Your task to perform on an android device: turn off picture-in-picture Image 0: 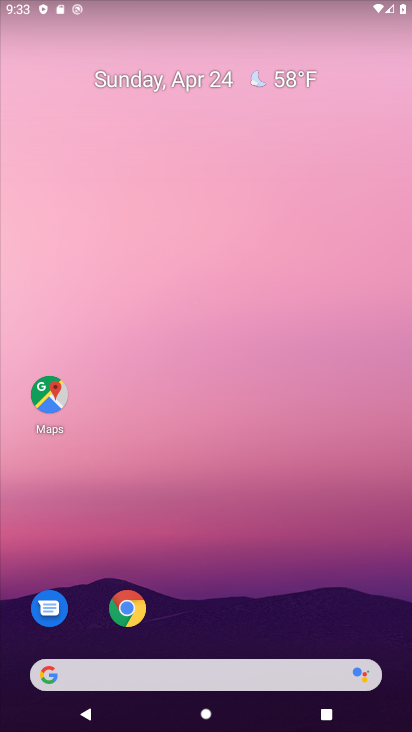
Step 0: drag from (352, 463) to (342, 106)
Your task to perform on an android device: turn off picture-in-picture Image 1: 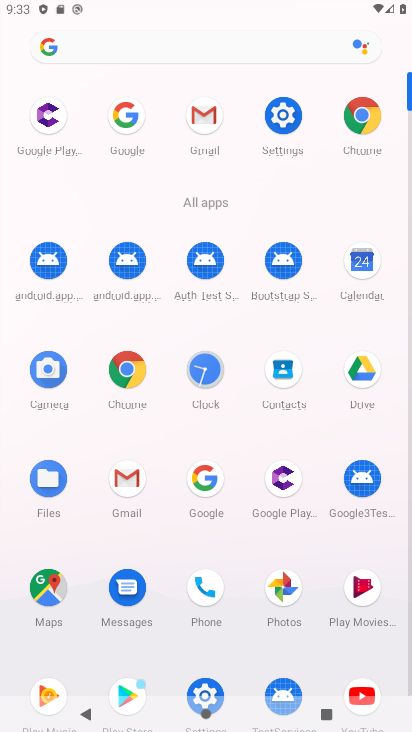
Step 1: click (366, 122)
Your task to perform on an android device: turn off picture-in-picture Image 2: 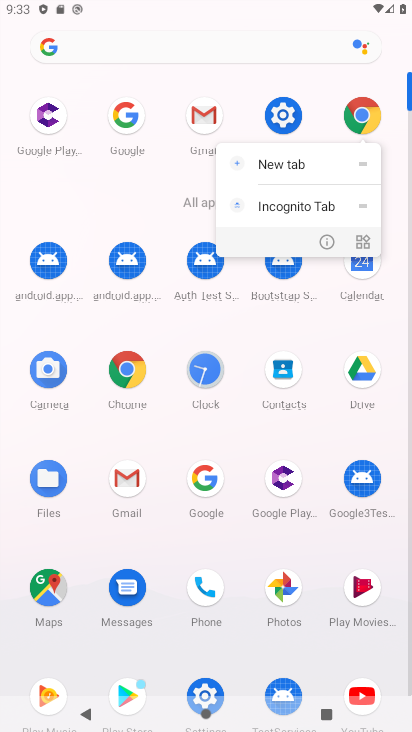
Step 2: click (331, 242)
Your task to perform on an android device: turn off picture-in-picture Image 3: 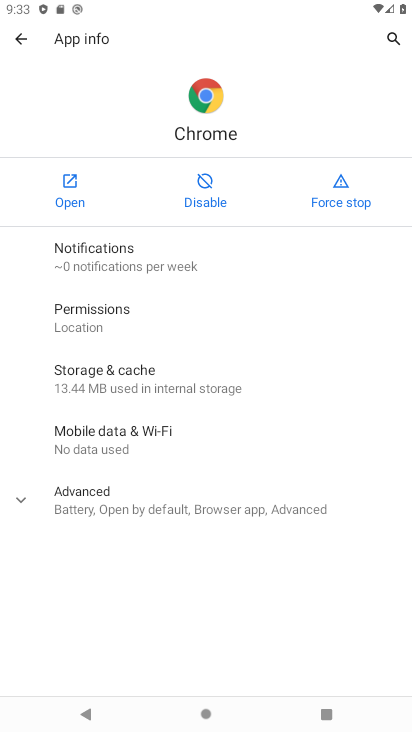
Step 3: click (117, 491)
Your task to perform on an android device: turn off picture-in-picture Image 4: 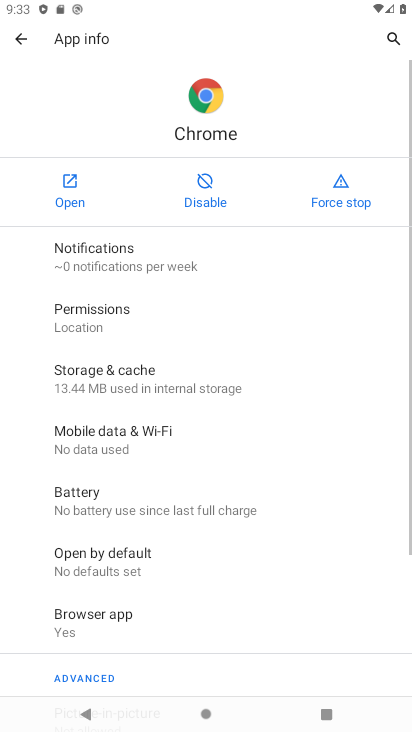
Step 4: drag from (150, 548) to (183, 217)
Your task to perform on an android device: turn off picture-in-picture Image 5: 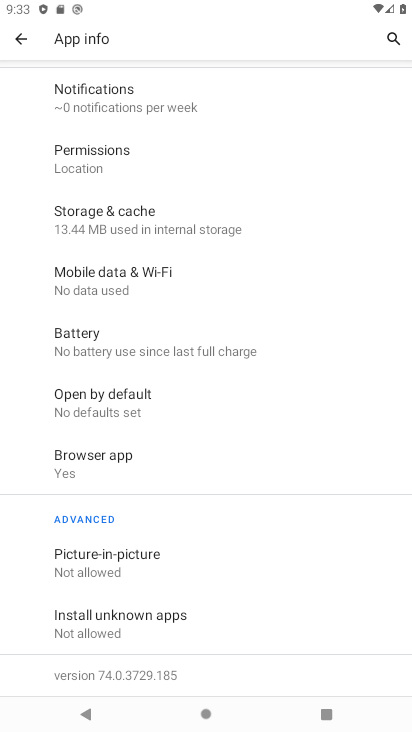
Step 5: drag from (204, 558) to (275, 256)
Your task to perform on an android device: turn off picture-in-picture Image 6: 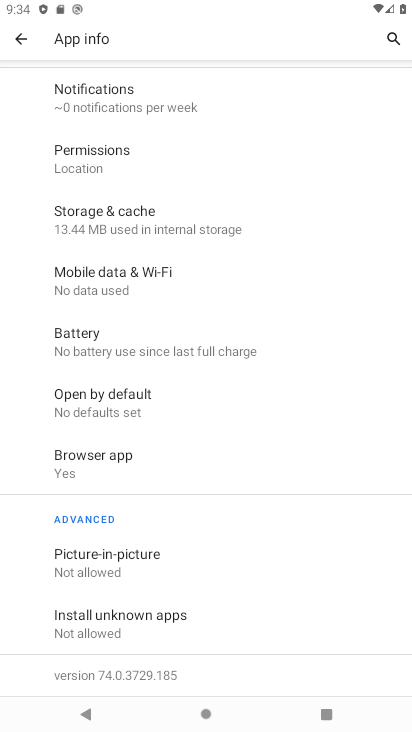
Step 6: click (127, 557)
Your task to perform on an android device: turn off picture-in-picture Image 7: 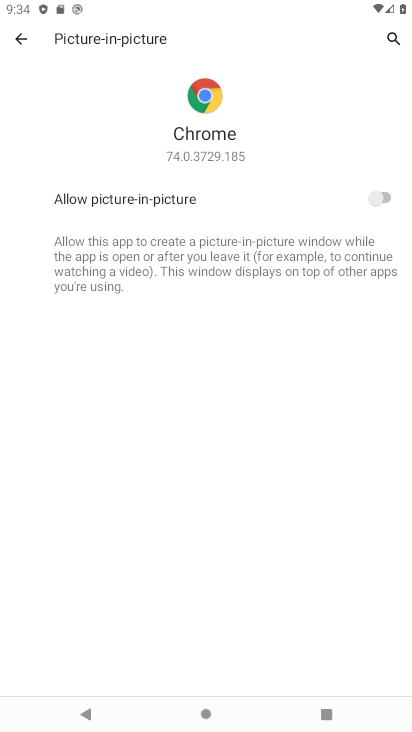
Step 7: task complete